Your task to perform on an android device: Search for Italian restaurants on Maps Image 0: 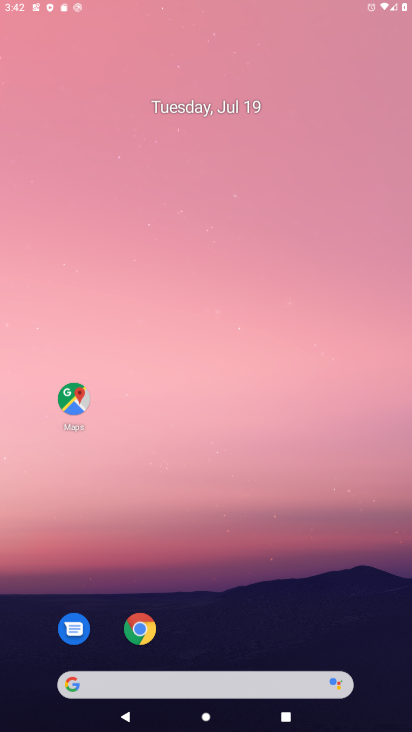
Step 0: click (259, 305)
Your task to perform on an android device: Search for Italian restaurants on Maps Image 1: 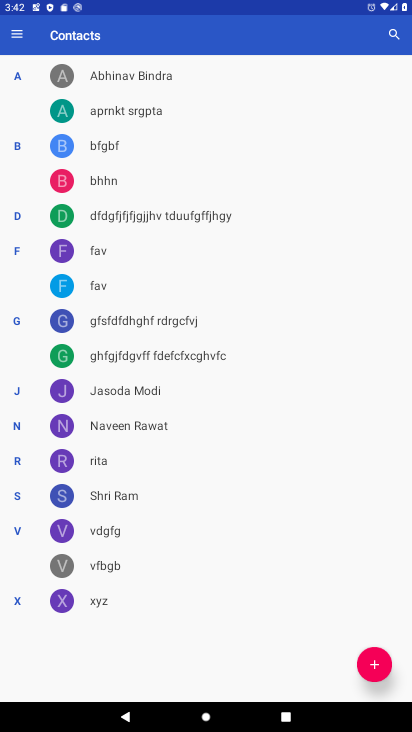
Step 1: press home button
Your task to perform on an android device: Search for Italian restaurants on Maps Image 2: 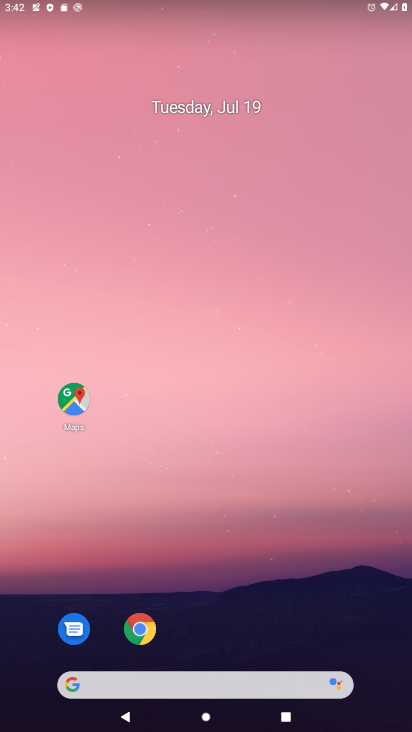
Step 2: click (68, 402)
Your task to perform on an android device: Search for Italian restaurants on Maps Image 3: 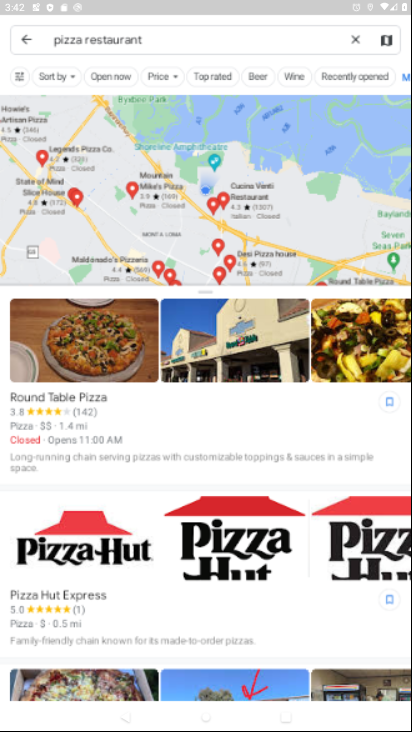
Step 3: click (136, 37)
Your task to perform on an android device: Search for Italian restaurants on Maps Image 4: 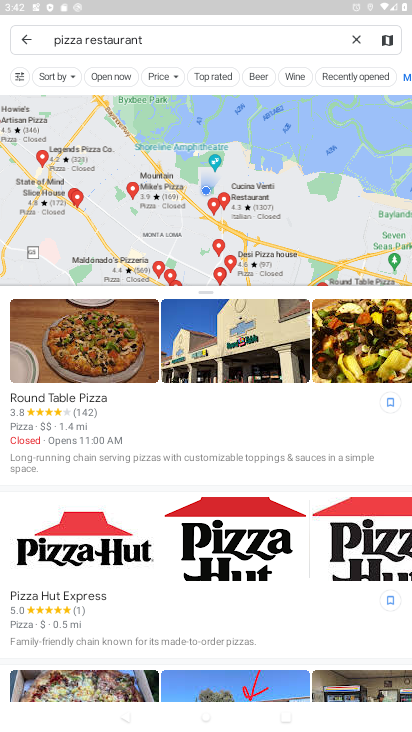
Step 4: click (354, 36)
Your task to perform on an android device: Search for Italian restaurants on Maps Image 5: 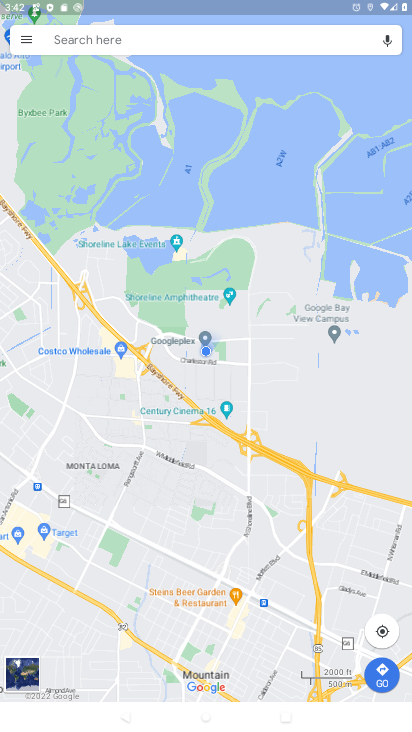
Step 5: click (113, 39)
Your task to perform on an android device: Search for Italian restaurants on Maps Image 6: 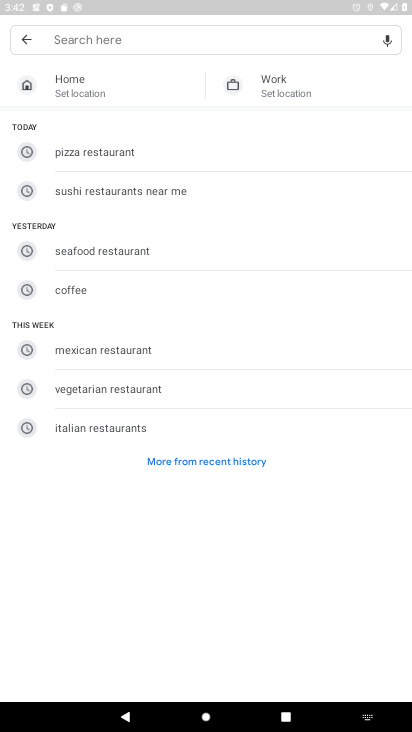
Step 6: click (66, 427)
Your task to perform on an android device: Search for Italian restaurants on Maps Image 7: 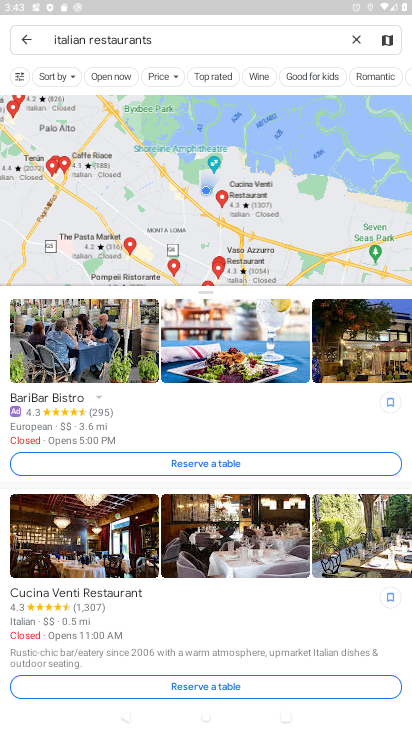
Step 7: task complete